Your task to perform on an android device: open wifi settings Image 0: 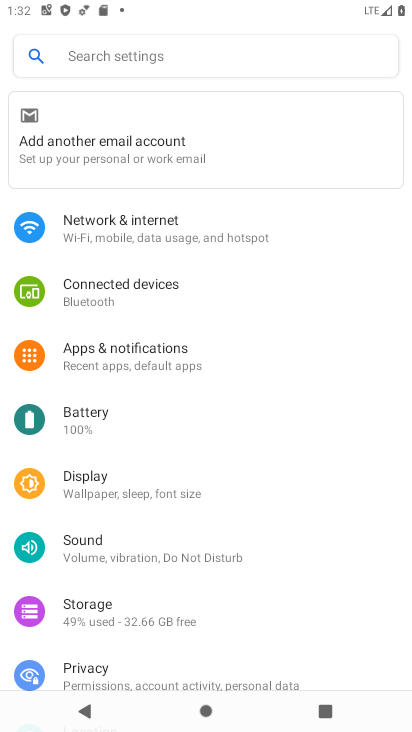
Step 0: click (215, 246)
Your task to perform on an android device: open wifi settings Image 1: 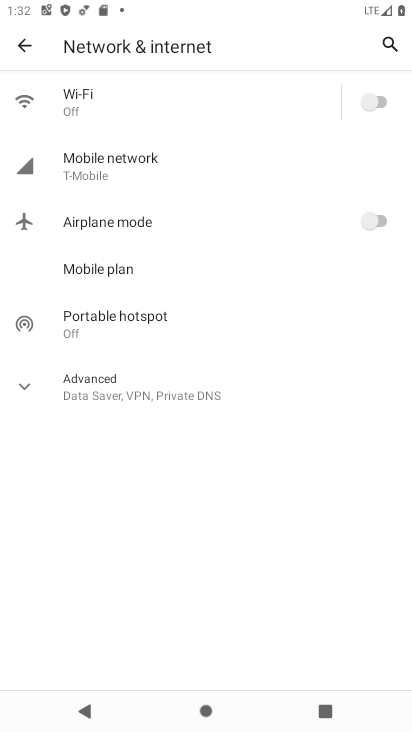
Step 1: click (130, 90)
Your task to perform on an android device: open wifi settings Image 2: 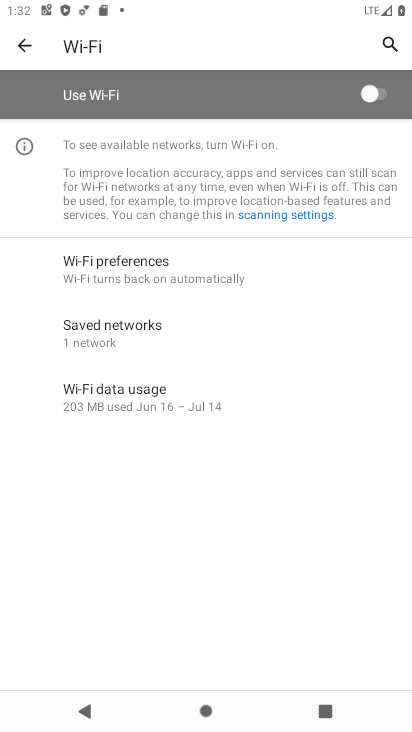
Step 2: task complete